Your task to perform on an android device: Go to network settings Image 0: 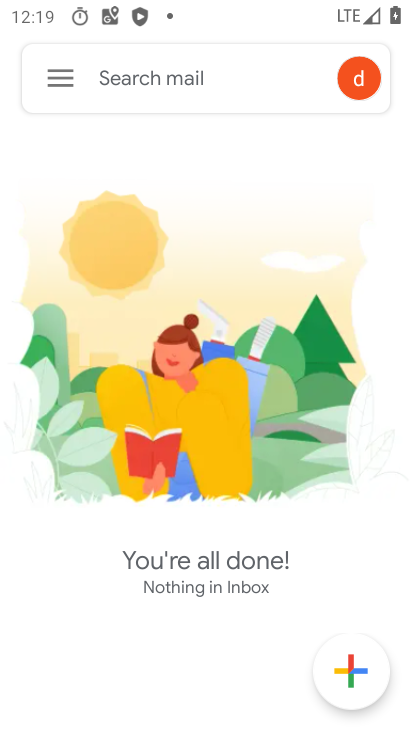
Step 0: click (51, 75)
Your task to perform on an android device: Go to network settings Image 1: 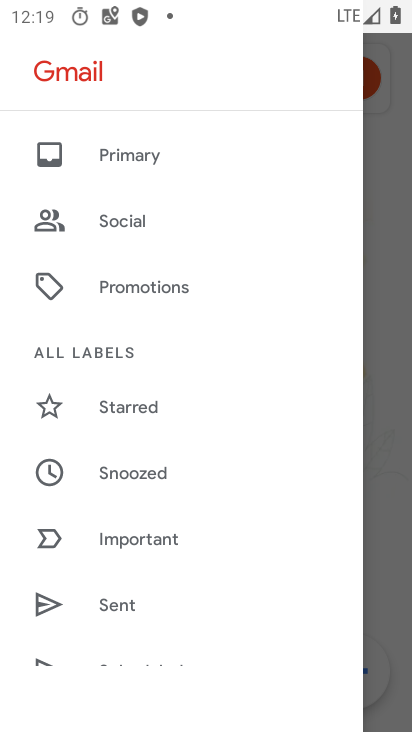
Step 1: press back button
Your task to perform on an android device: Go to network settings Image 2: 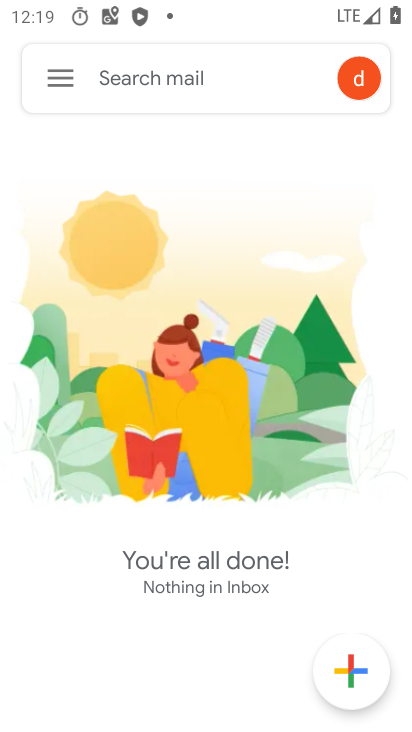
Step 2: press back button
Your task to perform on an android device: Go to network settings Image 3: 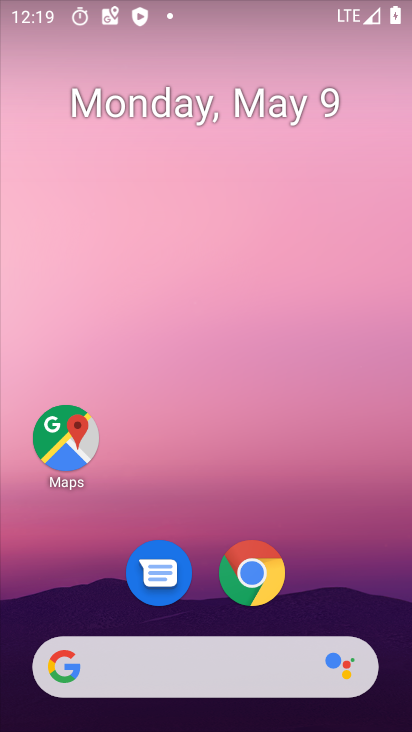
Step 3: drag from (336, 562) to (267, 24)
Your task to perform on an android device: Go to network settings Image 4: 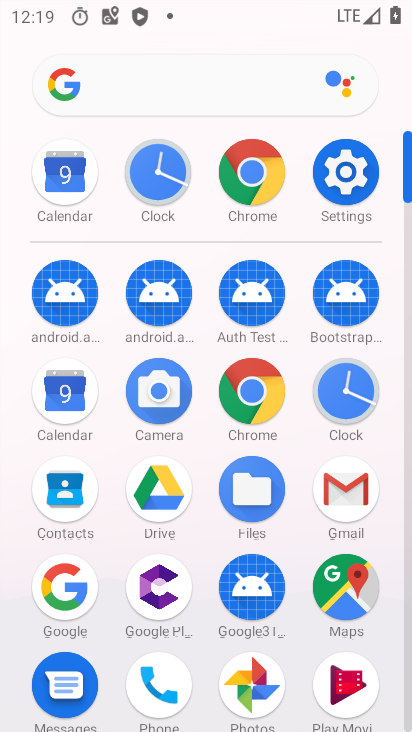
Step 4: click (342, 169)
Your task to perform on an android device: Go to network settings Image 5: 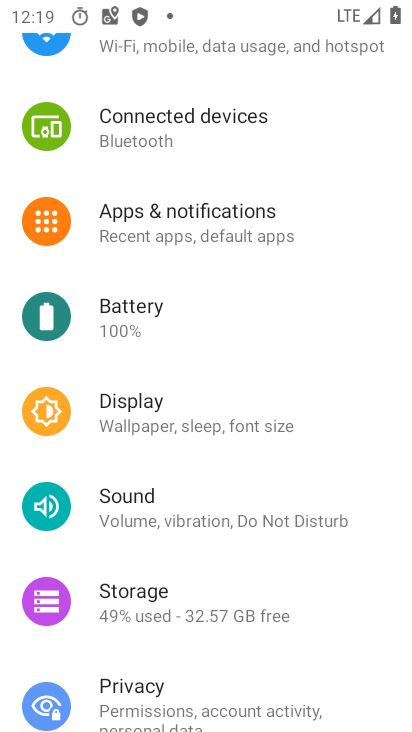
Step 5: drag from (334, 165) to (324, 535)
Your task to perform on an android device: Go to network settings Image 6: 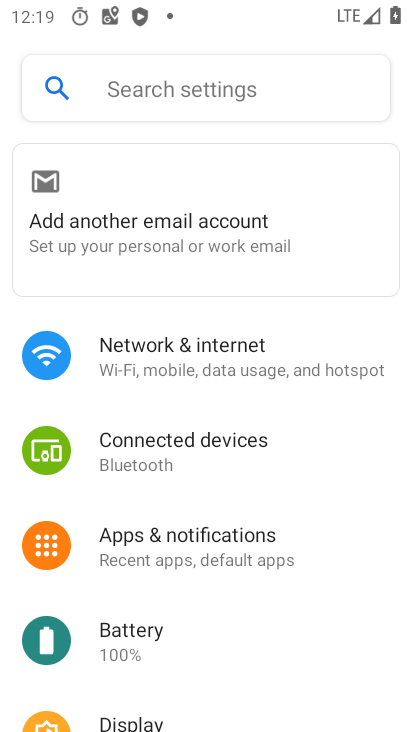
Step 6: click (215, 340)
Your task to perform on an android device: Go to network settings Image 7: 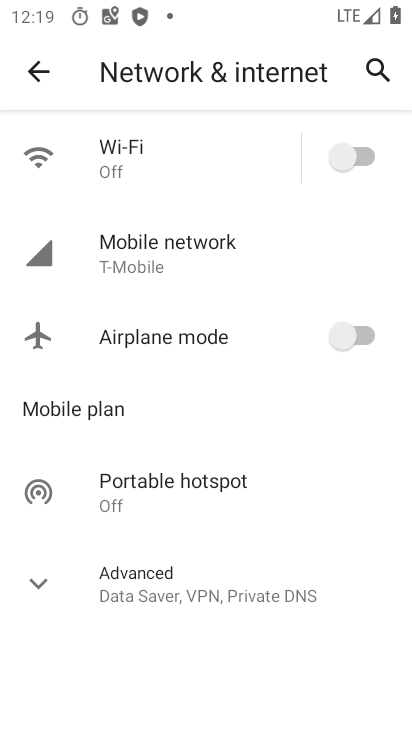
Step 7: click (19, 571)
Your task to perform on an android device: Go to network settings Image 8: 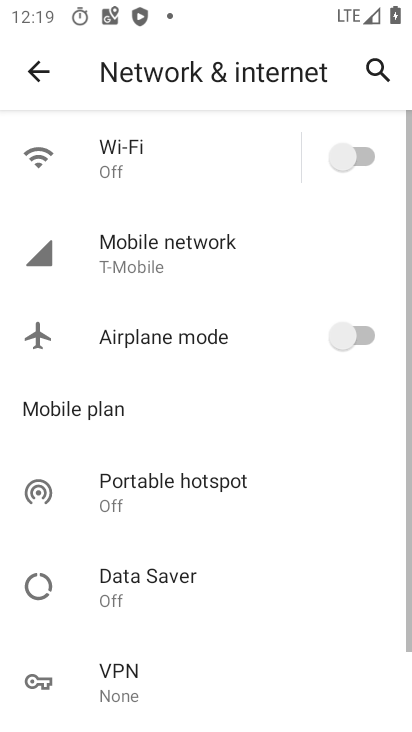
Step 8: task complete